Your task to perform on an android device: Go to display settings Image 0: 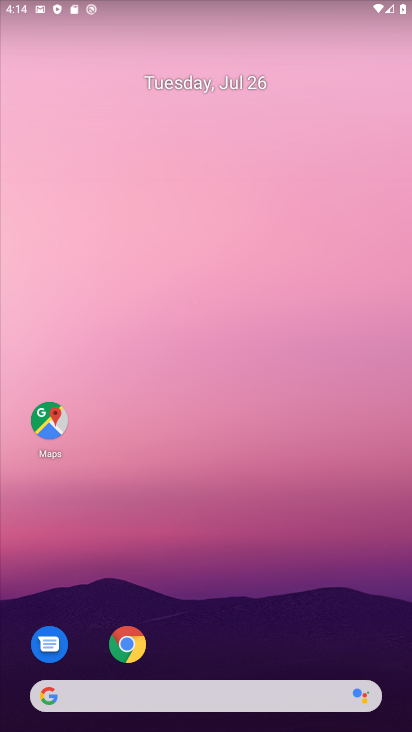
Step 0: drag from (281, 583) to (324, 104)
Your task to perform on an android device: Go to display settings Image 1: 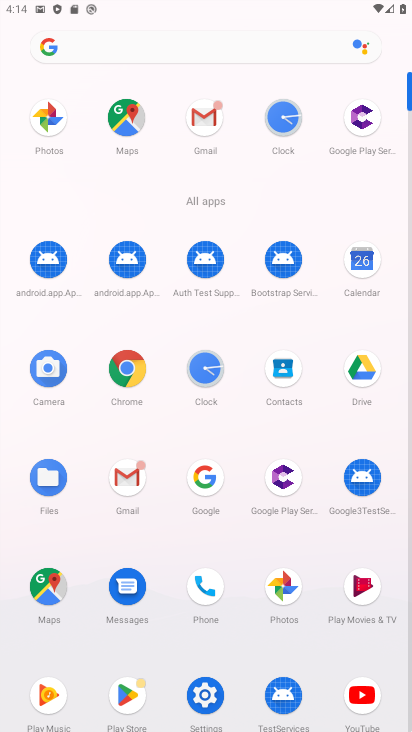
Step 1: click (211, 696)
Your task to perform on an android device: Go to display settings Image 2: 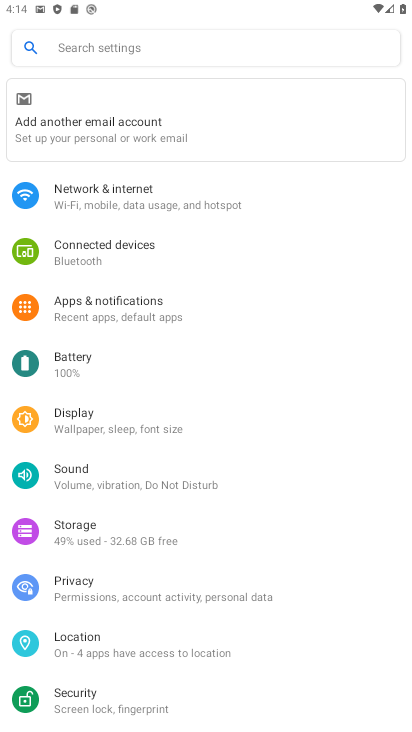
Step 2: click (67, 415)
Your task to perform on an android device: Go to display settings Image 3: 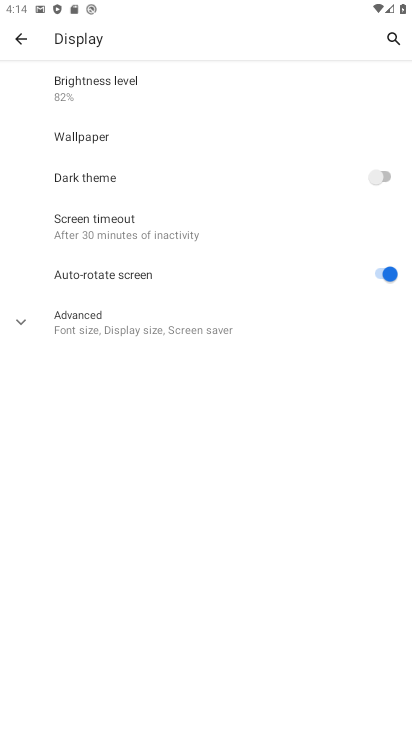
Step 3: task complete